Your task to perform on an android device: open sync settings in chrome Image 0: 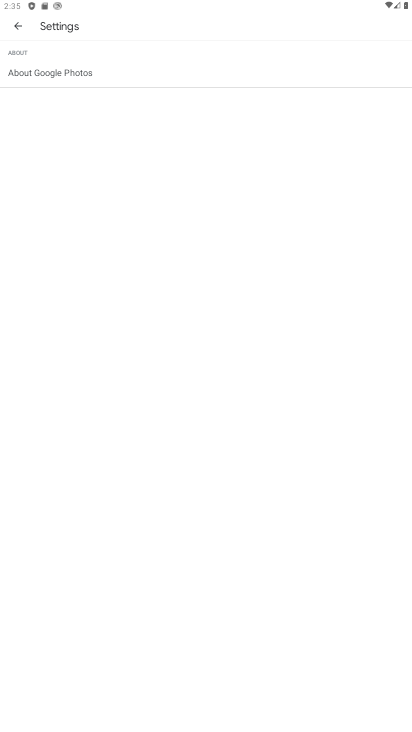
Step 0: press home button
Your task to perform on an android device: open sync settings in chrome Image 1: 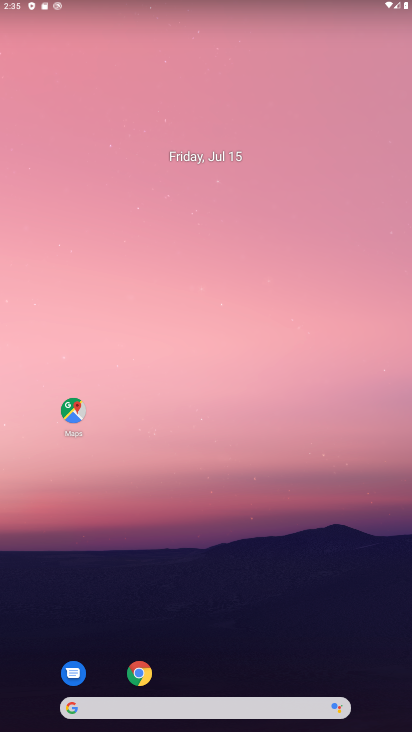
Step 1: click (139, 672)
Your task to perform on an android device: open sync settings in chrome Image 2: 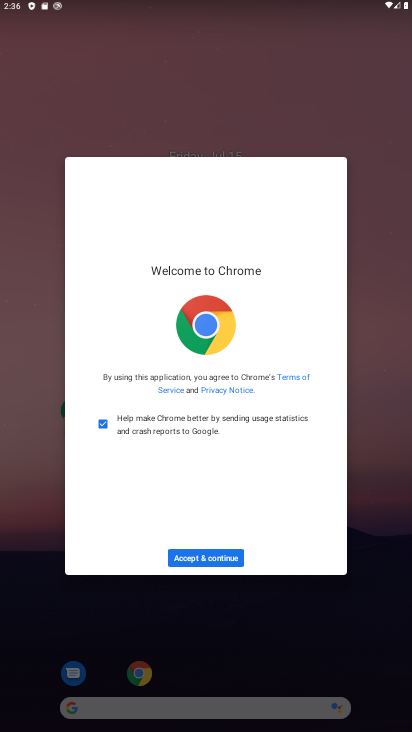
Step 2: click (202, 553)
Your task to perform on an android device: open sync settings in chrome Image 3: 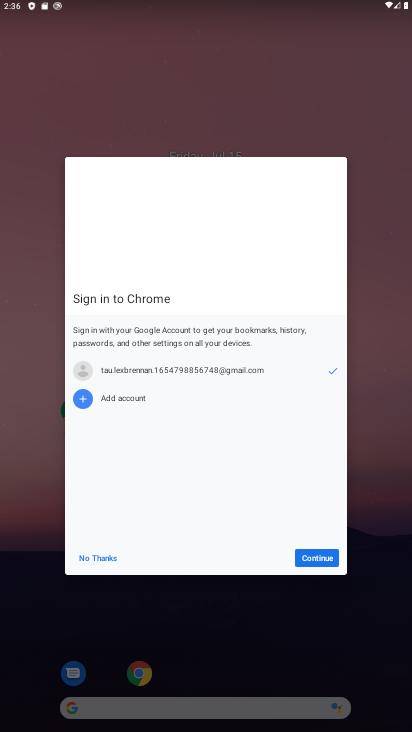
Step 3: click (325, 562)
Your task to perform on an android device: open sync settings in chrome Image 4: 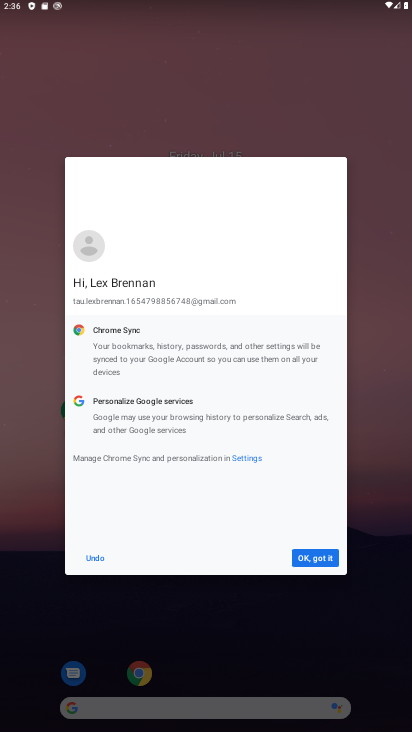
Step 4: click (325, 562)
Your task to perform on an android device: open sync settings in chrome Image 5: 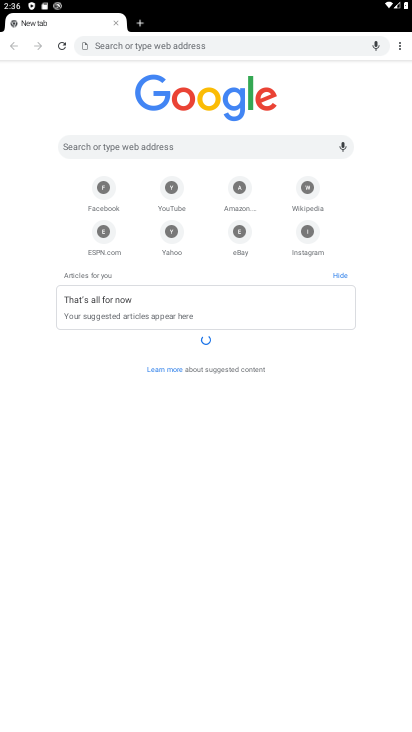
Step 5: click (398, 49)
Your task to perform on an android device: open sync settings in chrome Image 6: 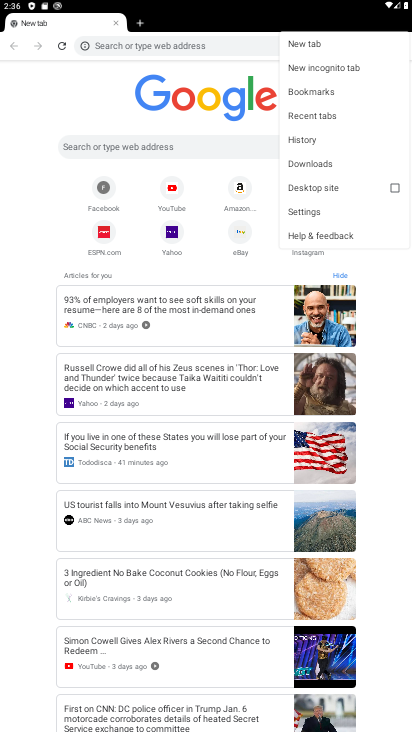
Step 6: click (320, 207)
Your task to perform on an android device: open sync settings in chrome Image 7: 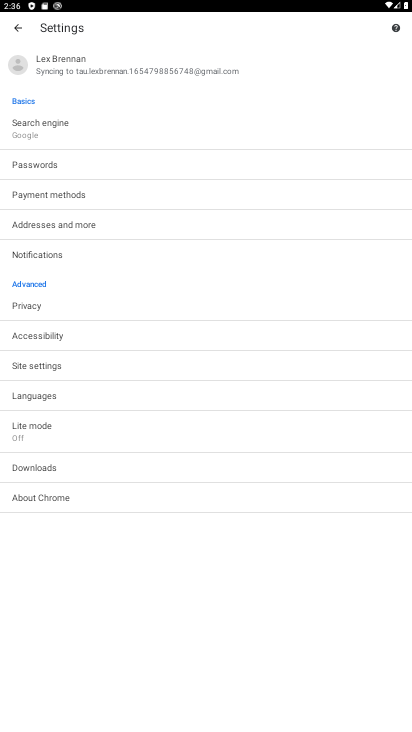
Step 7: click (83, 60)
Your task to perform on an android device: open sync settings in chrome Image 8: 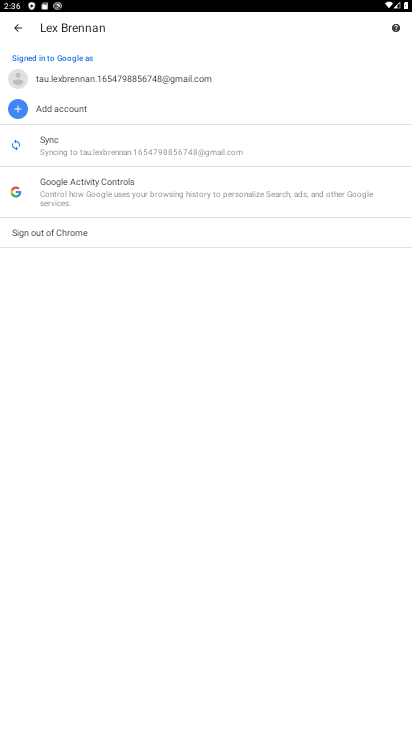
Step 8: click (104, 157)
Your task to perform on an android device: open sync settings in chrome Image 9: 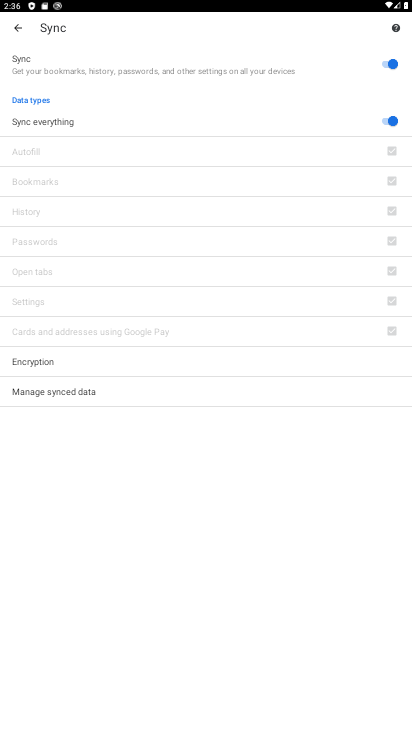
Step 9: task complete